Your task to perform on an android device: Open sound settings Image 0: 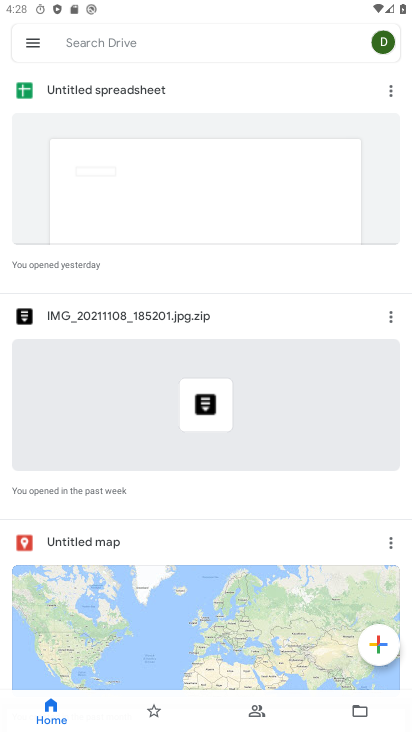
Step 0: press home button
Your task to perform on an android device: Open sound settings Image 1: 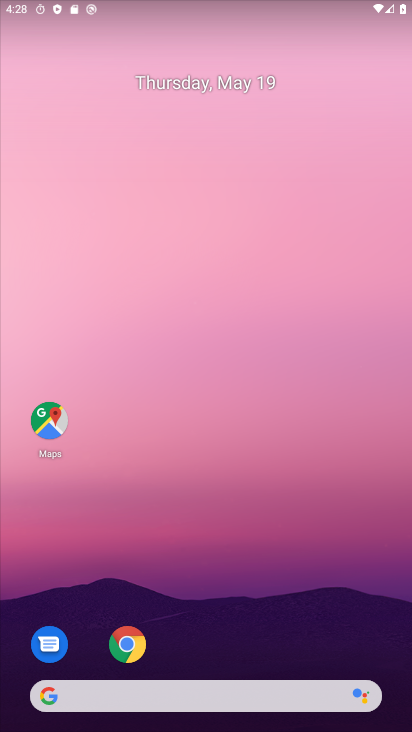
Step 1: drag from (163, 624) to (181, 149)
Your task to perform on an android device: Open sound settings Image 2: 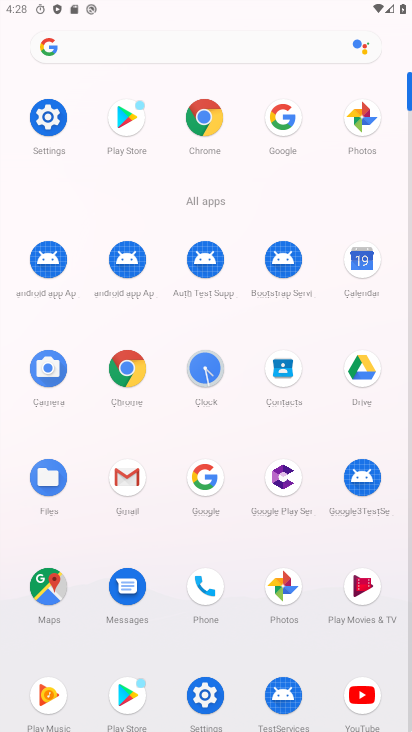
Step 2: click (49, 118)
Your task to perform on an android device: Open sound settings Image 3: 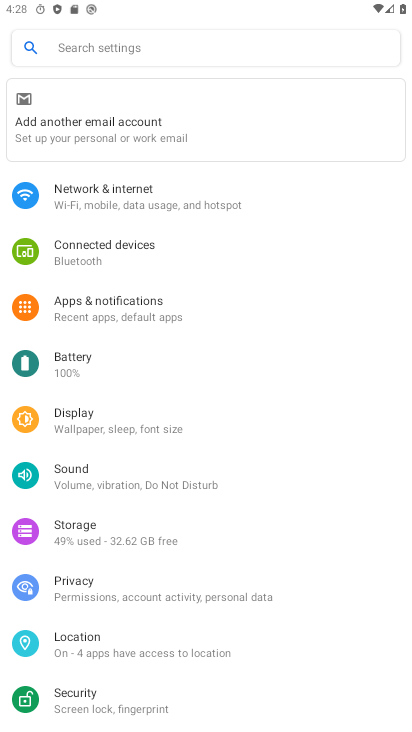
Step 3: click (74, 484)
Your task to perform on an android device: Open sound settings Image 4: 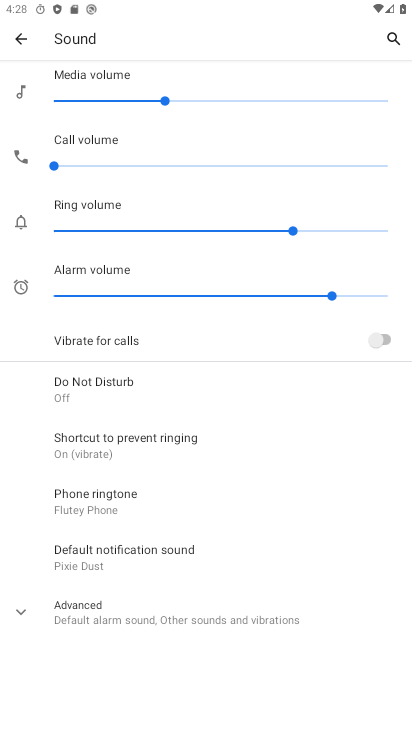
Step 4: click (69, 627)
Your task to perform on an android device: Open sound settings Image 5: 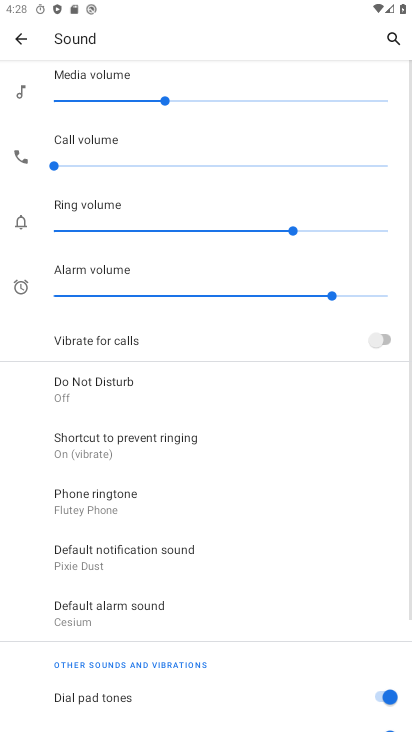
Step 5: task complete